Your task to perform on an android device: toggle javascript in the chrome app Image 0: 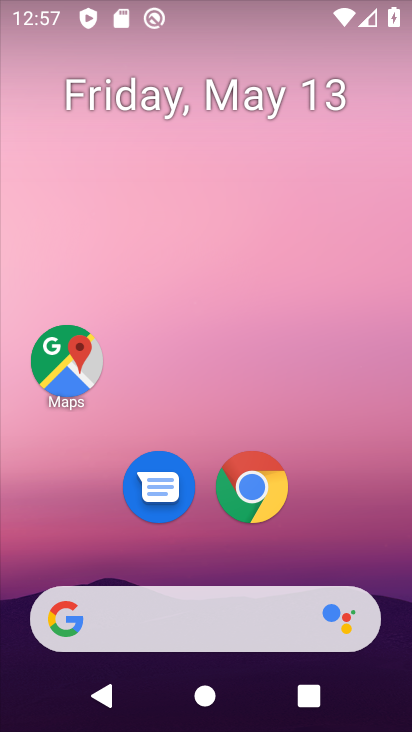
Step 0: drag from (320, 514) to (322, 205)
Your task to perform on an android device: toggle javascript in the chrome app Image 1: 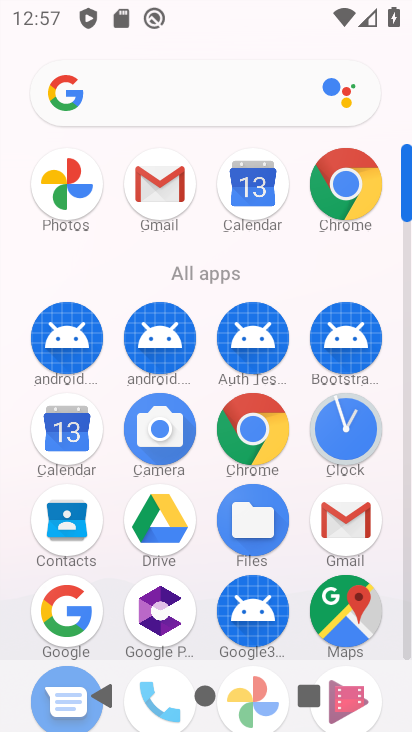
Step 1: click (251, 431)
Your task to perform on an android device: toggle javascript in the chrome app Image 2: 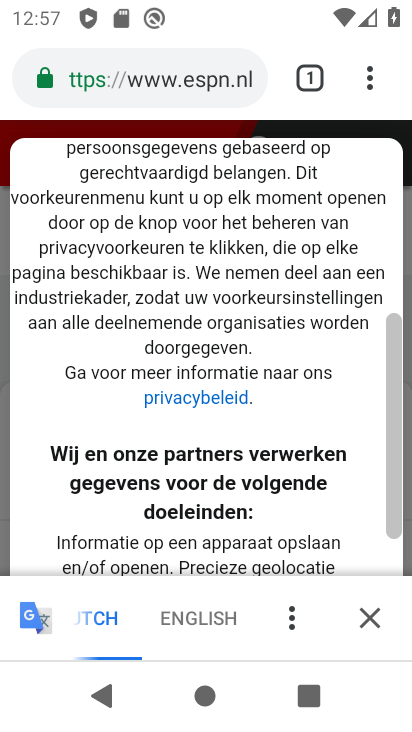
Step 2: drag from (371, 82) to (207, 561)
Your task to perform on an android device: toggle javascript in the chrome app Image 3: 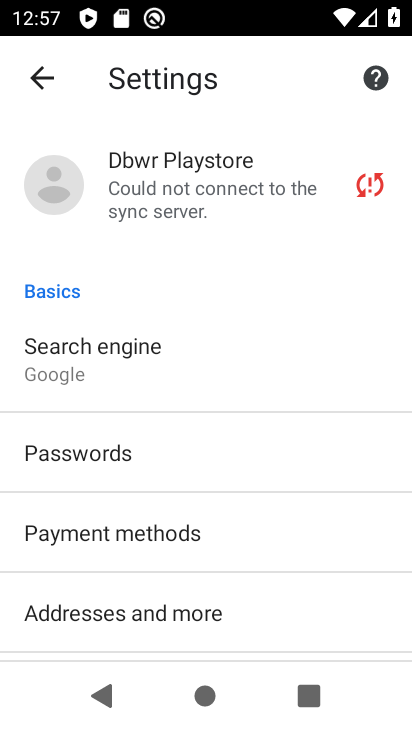
Step 3: drag from (333, 629) to (319, 293)
Your task to perform on an android device: toggle javascript in the chrome app Image 4: 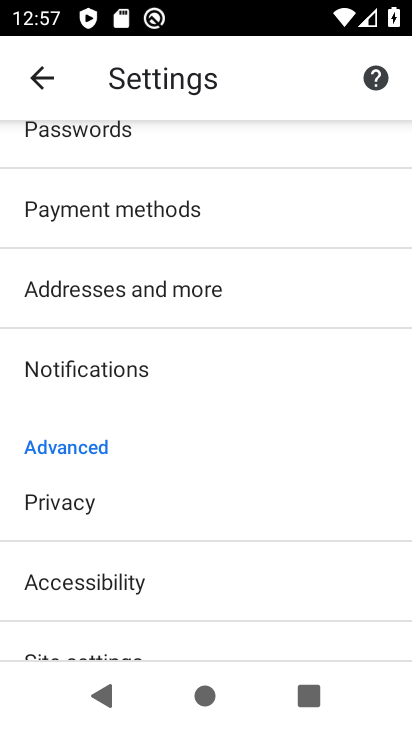
Step 4: drag from (282, 597) to (285, 240)
Your task to perform on an android device: toggle javascript in the chrome app Image 5: 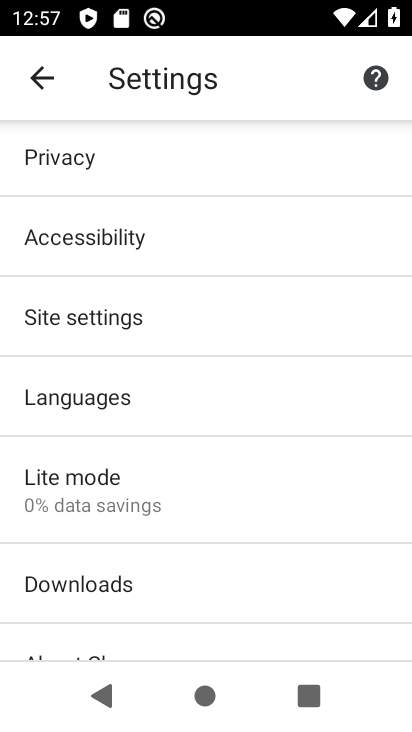
Step 5: drag from (284, 407) to (284, 282)
Your task to perform on an android device: toggle javascript in the chrome app Image 6: 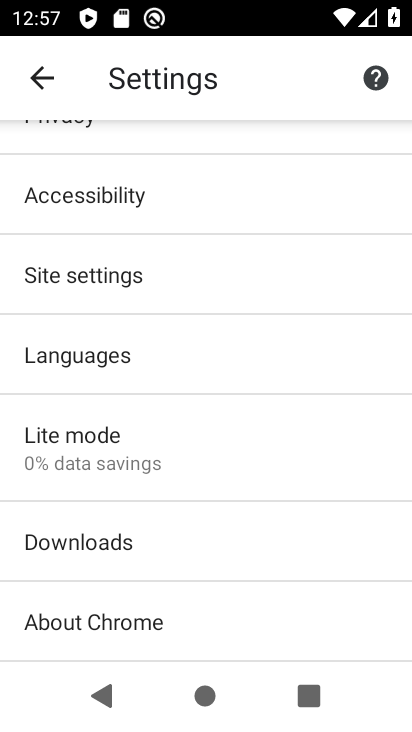
Step 6: click (229, 274)
Your task to perform on an android device: toggle javascript in the chrome app Image 7: 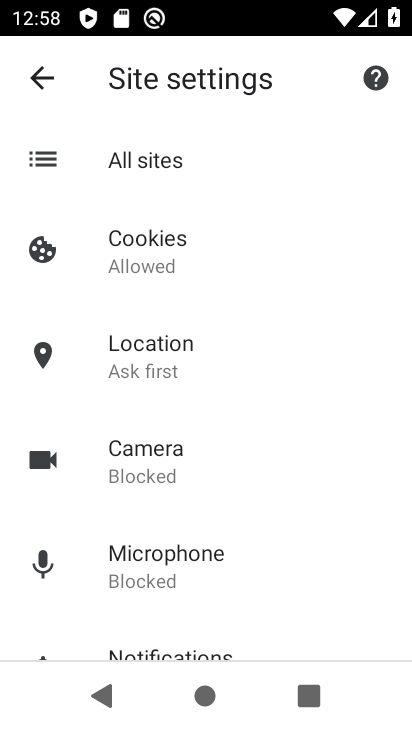
Step 7: drag from (269, 652) to (307, 334)
Your task to perform on an android device: toggle javascript in the chrome app Image 8: 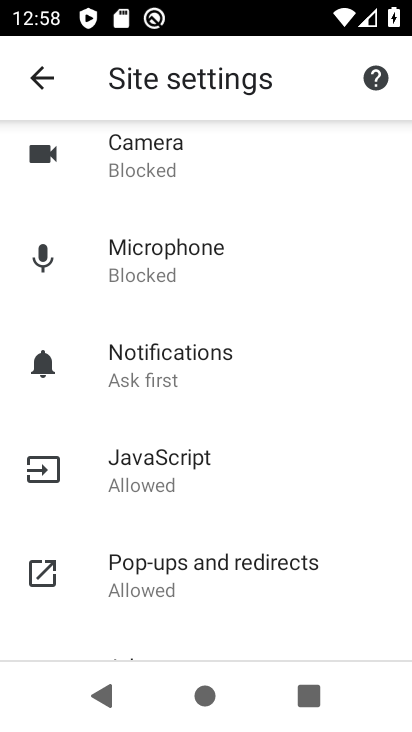
Step 8: click (213, 448)
Your task to perform on an android device: toggle javascript in the chrome app Image 9: 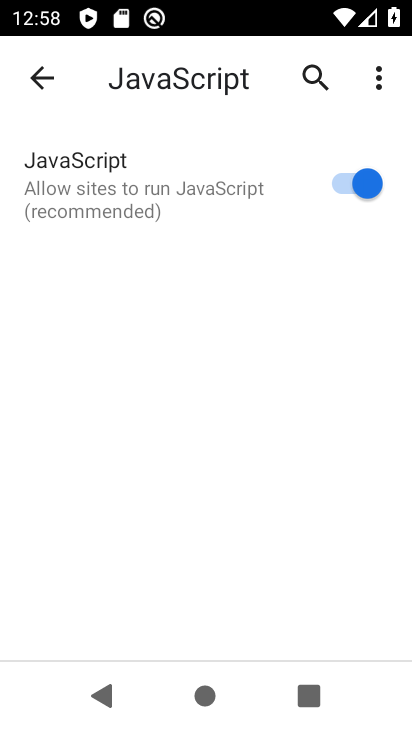
Step 9: click (351, 186)
Your task to perform on an android device: toggle javascript in the chrome app Image 10: 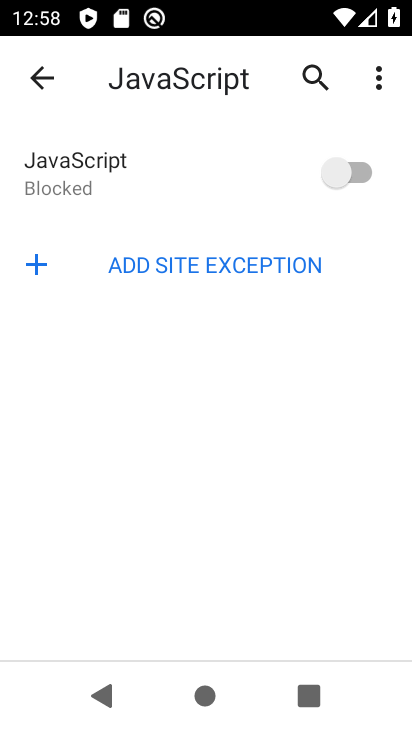
Step 10: task complete